Your task to perform on an android device: Check the weather Image 0: 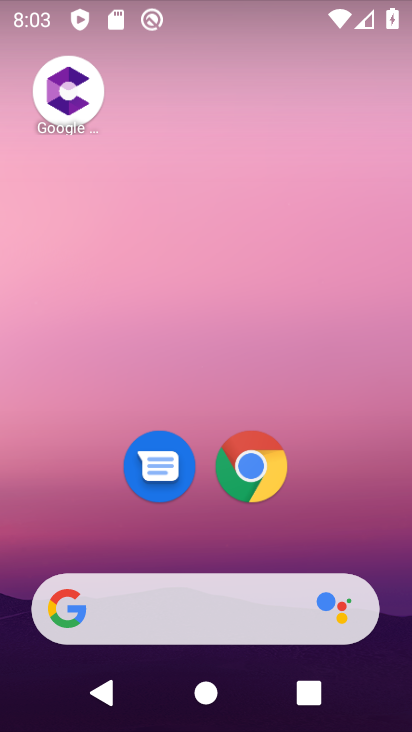
Step 0: drag from (139, 289) to (402, 479)
Your task to perform on an android device: Check the weather Image 1: 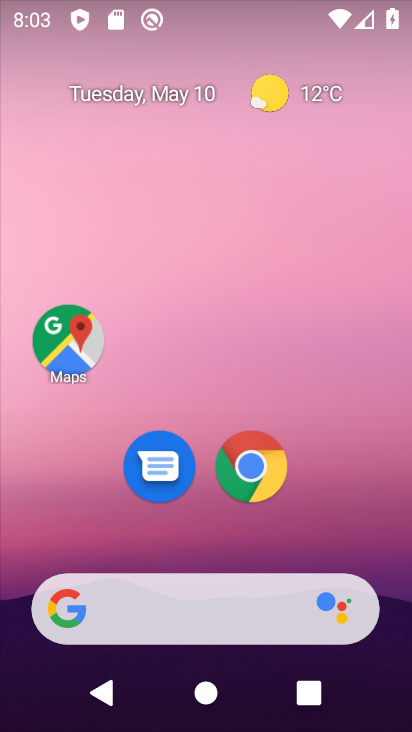
Step 1: click (312, 98)
Your task to perform on an android device: Check the weather Image 2: 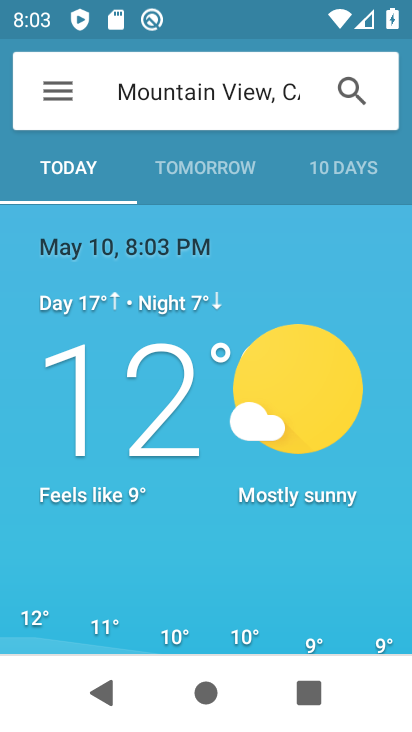
Step 2: task complete